Your task to perform on an android device: Open internet settings Image 0: 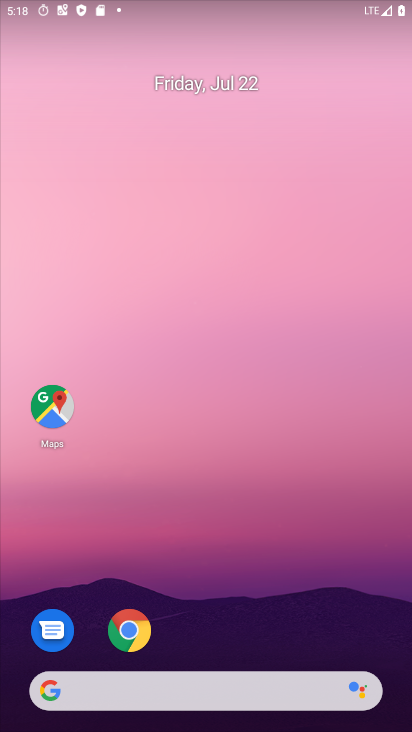
Step 0: drag from (160, 615) to (161, 3)
Your task to perform on an android device: Open internet settings Image 1: 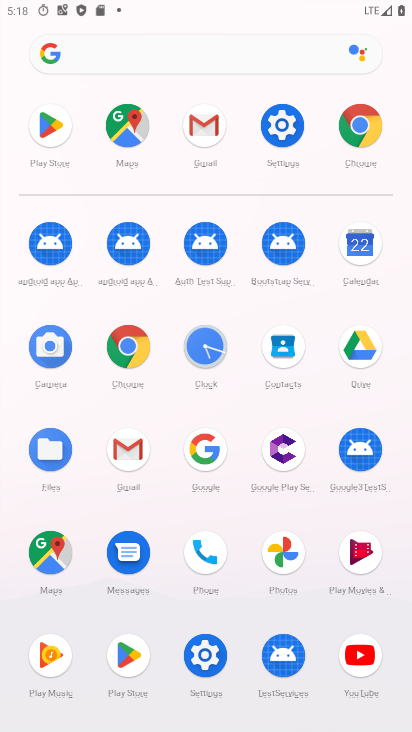
Step 1: click (290, 118)
Your task to perform on an android device: Open internet settings Image 2: 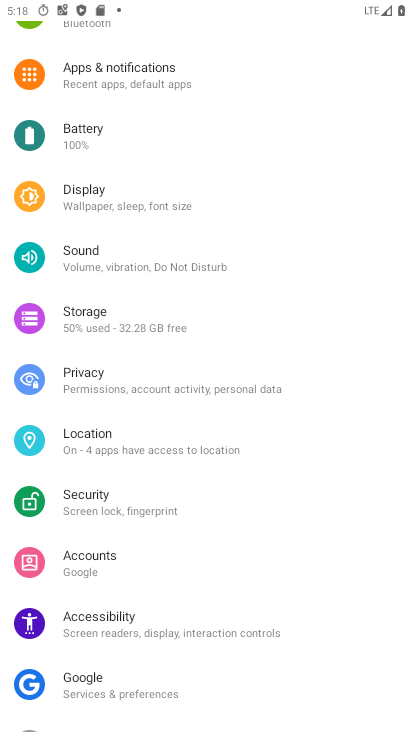
Step 2: drag from (169, 223) to (180, 655)
Your task to perform on an android device: Open internet settings Image 3: 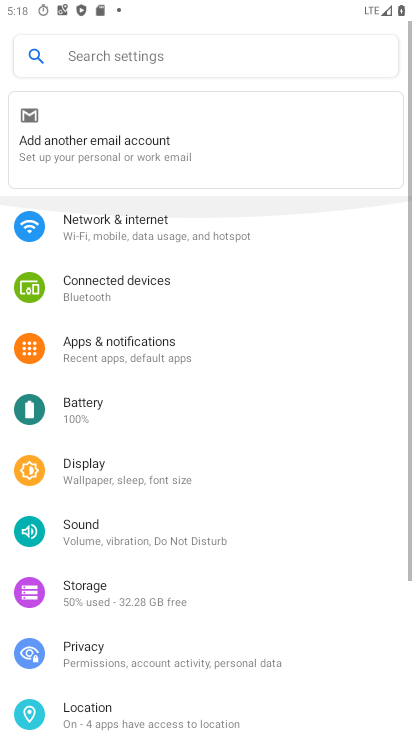
Step 3: click (152, 232)
Your task to perform on an android device: Open internet settings Image 4: 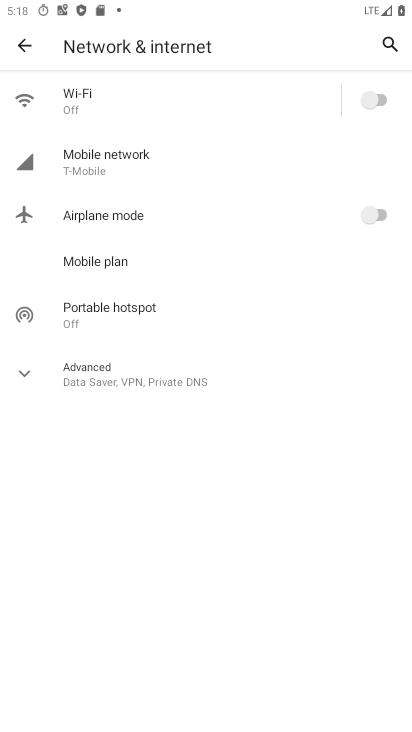
Step 4: task complete